Your task to perform on an android device: Search for a sofa on article.com Image 0: 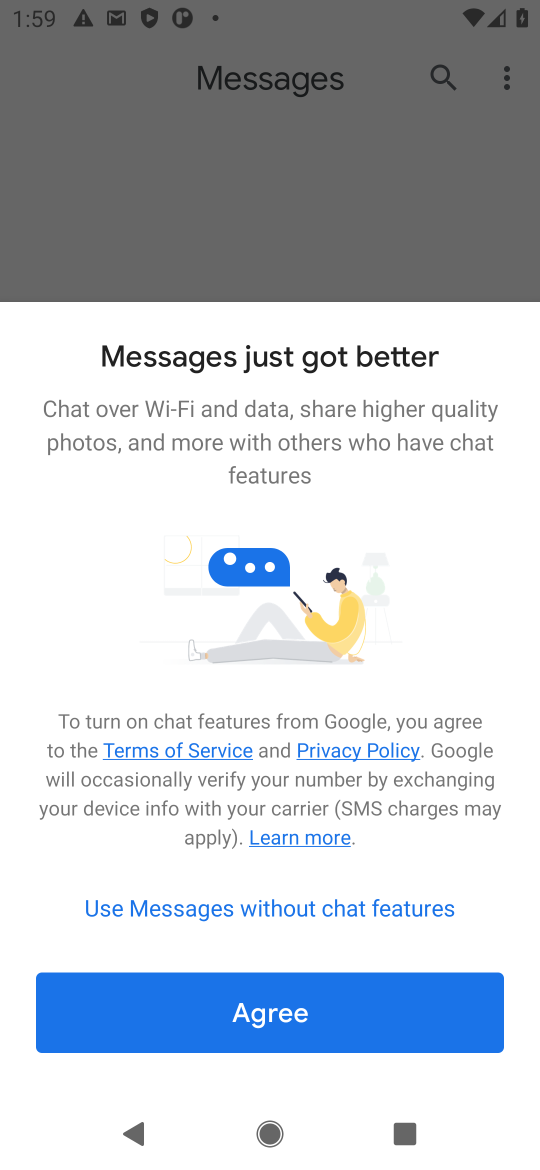
Step 0: press home button
Your task to perform on an android device: Search for a sofa on article.com Image 1: 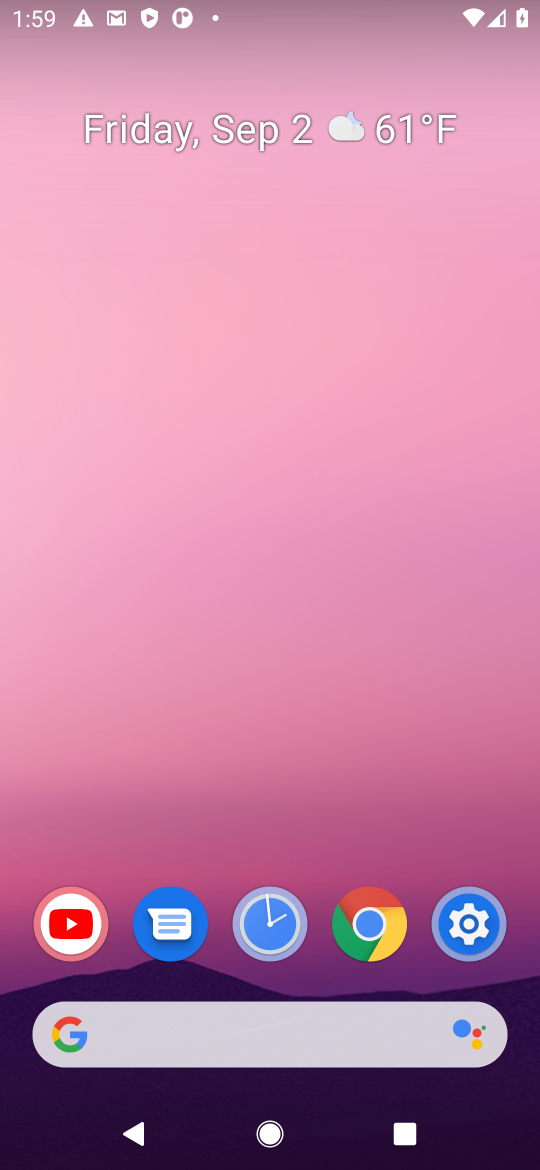
Step 1: click (407, 1022)
Your task to perform on an android device: Search for a sofa on article.com Image 2: 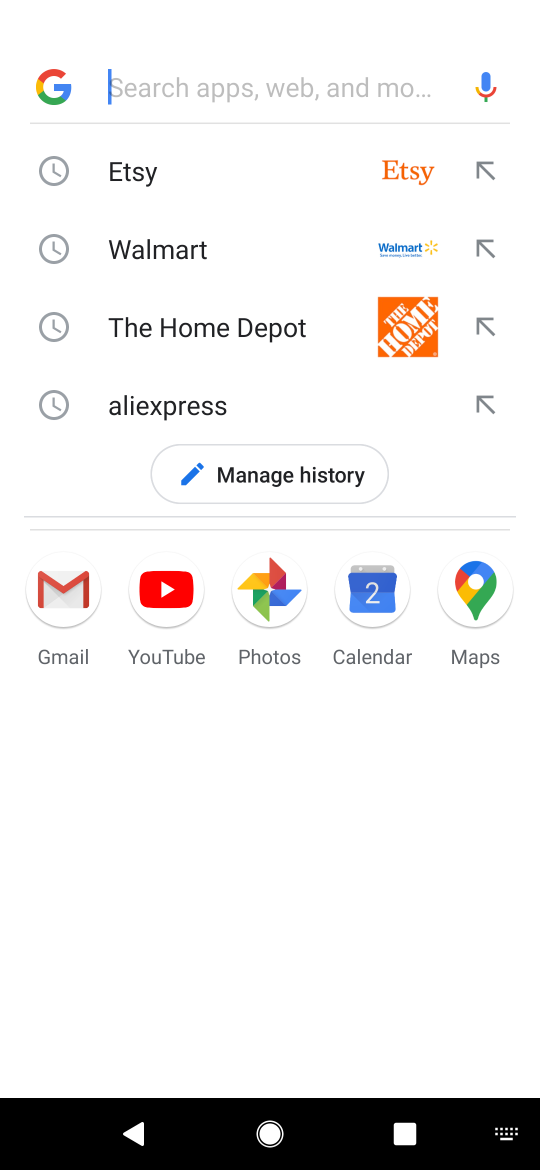
Step 2: press enter
Your task to perform on an android device: Search for a sofa on article.com Image 3: 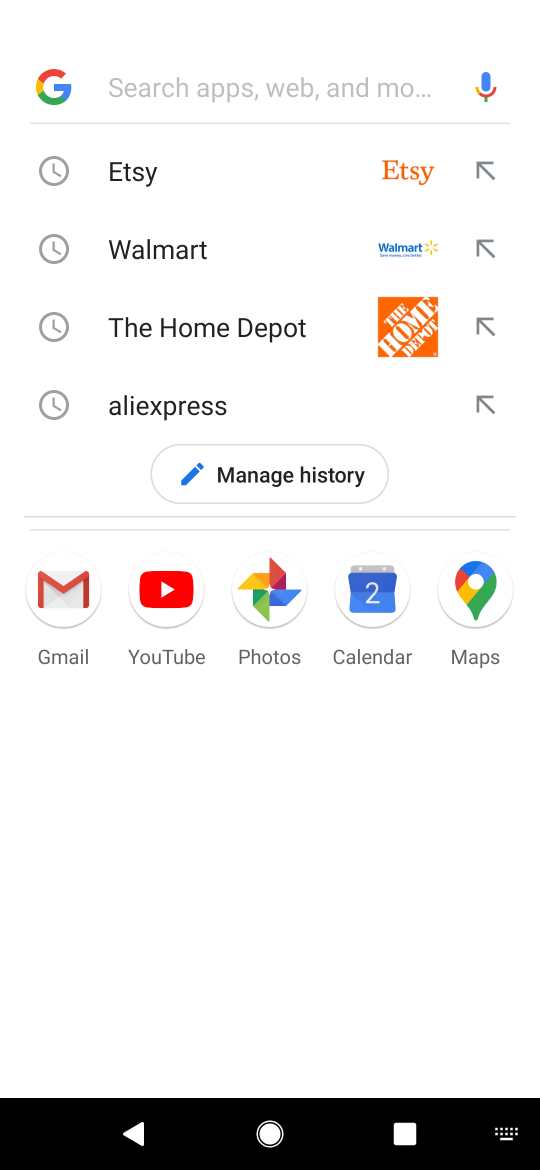
Step 3: type "article.com"
Your task to perform on an android device: Search for a sofa on article.com Image 4: 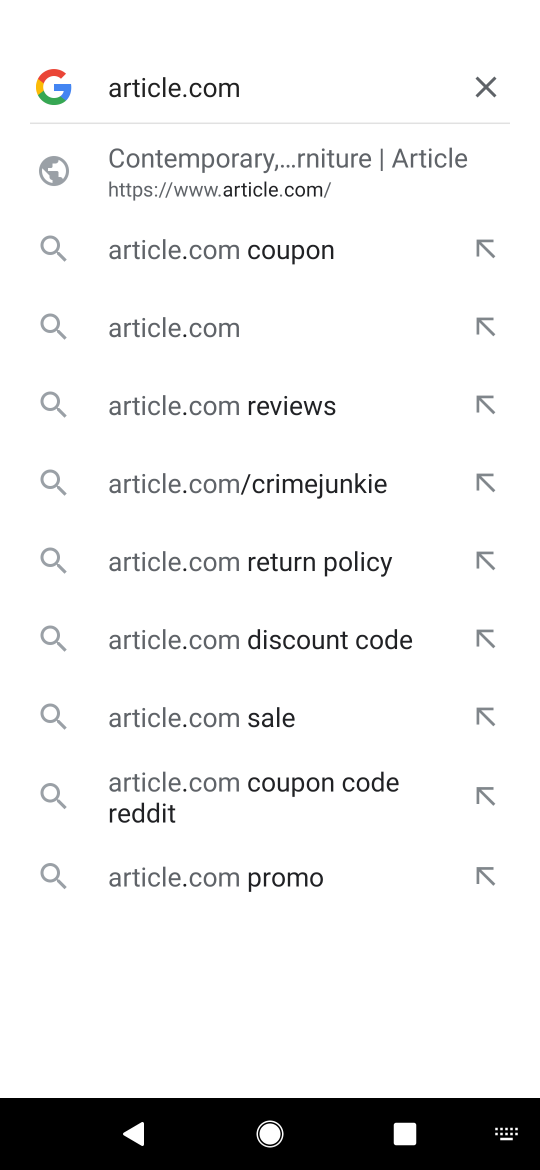
Step 4: click (300, 181)
Your task to perform on an android device: Search for a sofa on article.com Image 5: 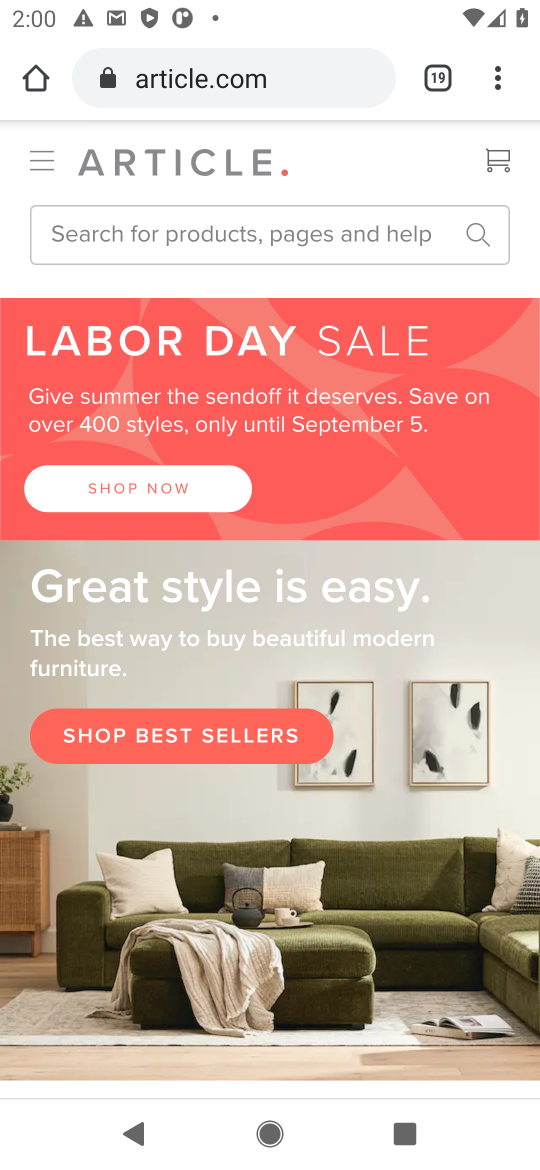
Step 5: click (296, 238)
Your task to perform on an android device: Search for a sofa on article.com Image 6: 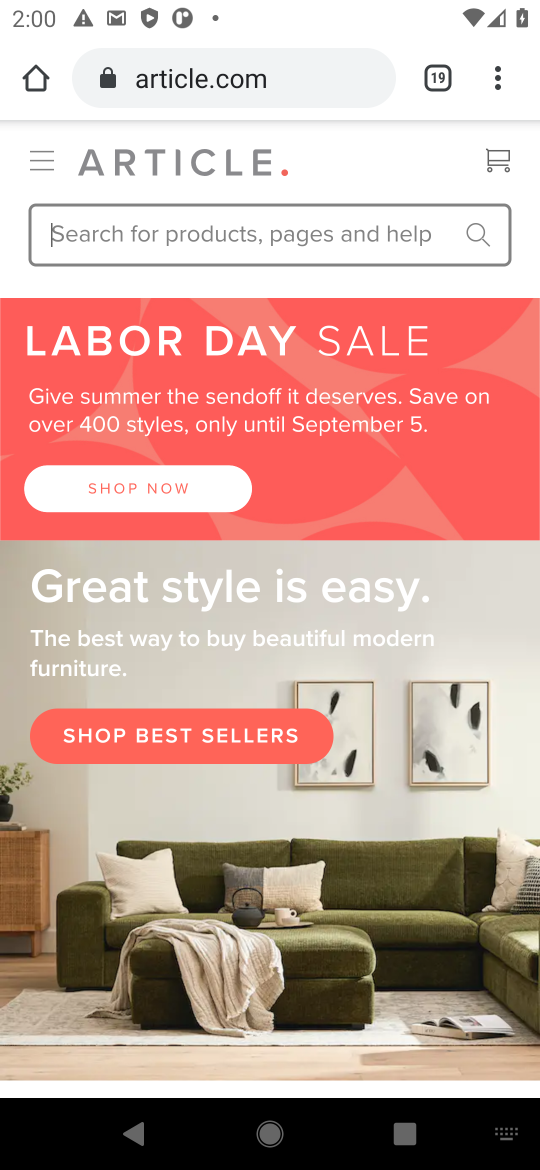
Step 6: type "sofa"
Your task to perform on an android device: Search for a sofa on article.com Image 7: 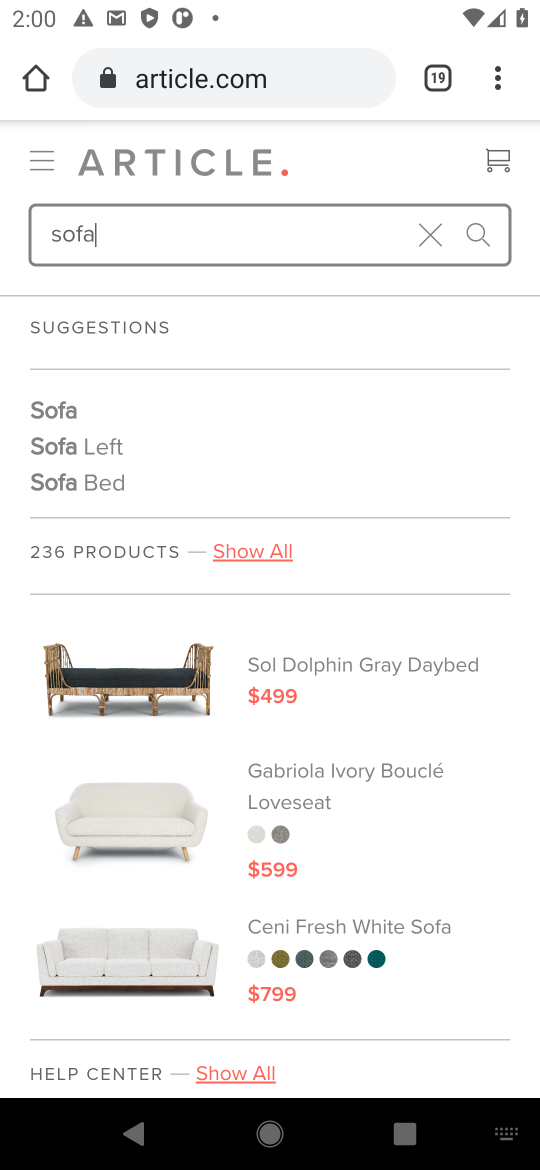
Step 7: task complete